Your task to perform on an android device: open a bookmark in the chrome app Image 0: 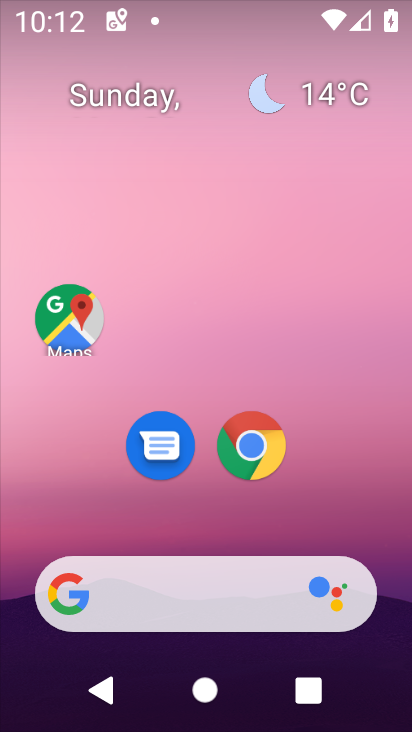
Step 0: drag from (209, 551) to (298, 13)
Your task to perform on an android device: open a bookmark in the chrome app Image 1: 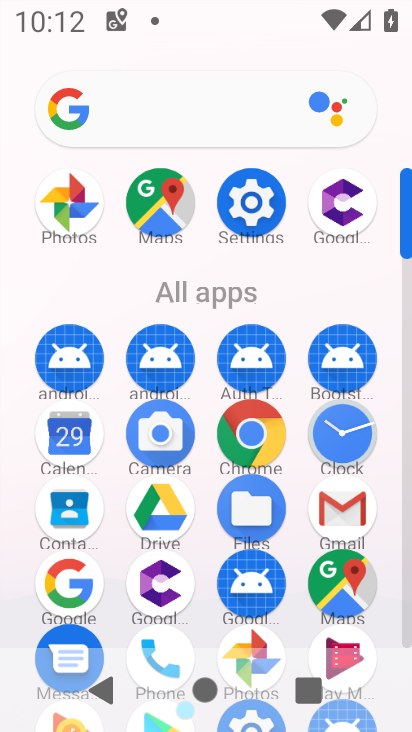
Step 1: click (246, 431)
Your task to perform on an android device: open a bookmark in the chrome app Image 2: 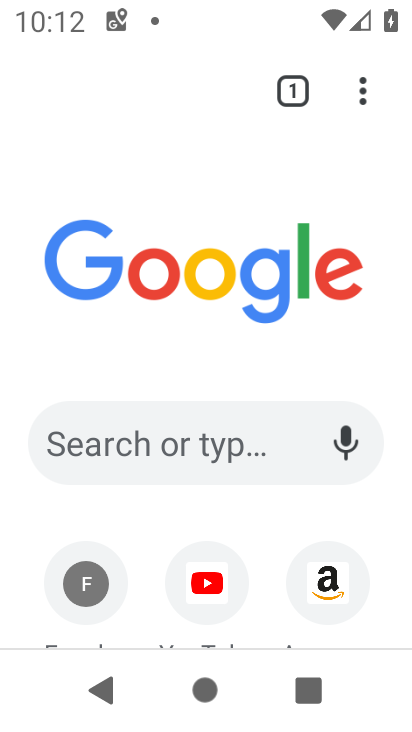
Step 2: task complete